Your task to perform on an android device: Go to Maps Image 0: 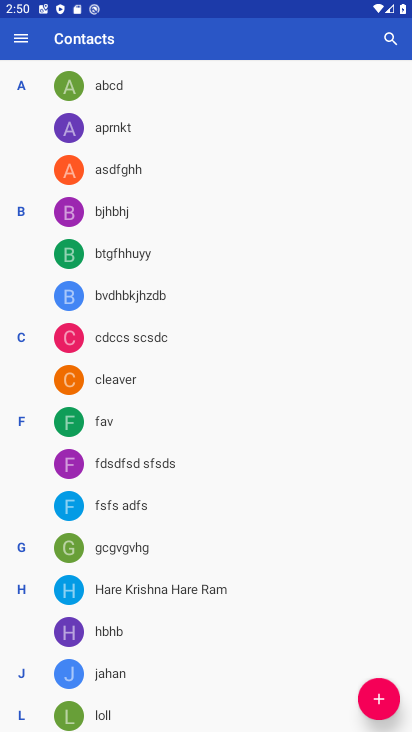
Step 0: press home button
Your task to perform on an android device: Go to Maps Image 1: 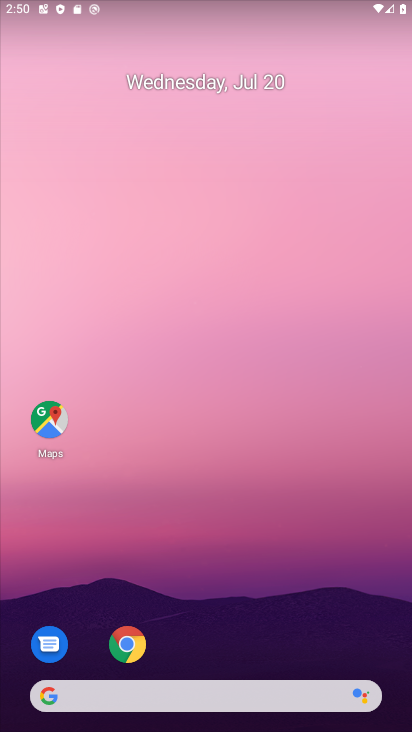
Step 1: click (52, 426)
Your task to perform on an android device: Go to Maps Image 2: 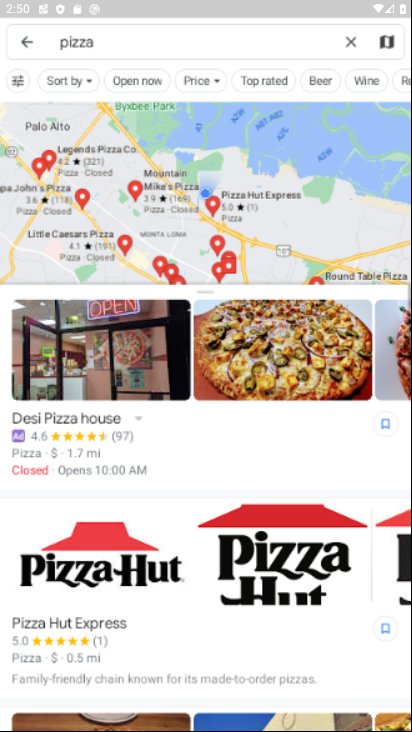
Step 2: task complete